Your task to perform on an android device: change alarm snooze length Image 0: 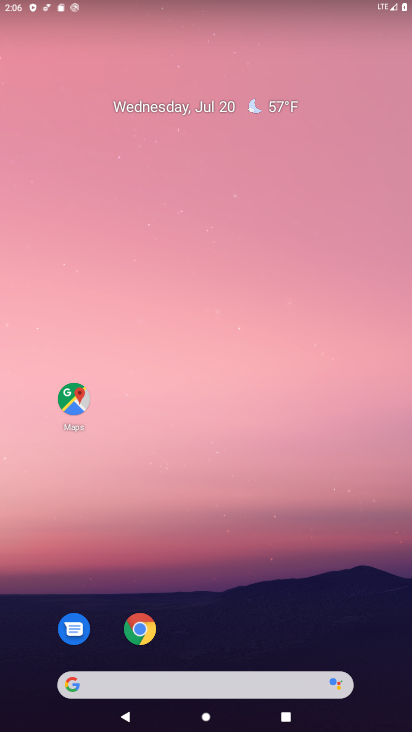
Step 0: drag from (375, 654) to (336, 88)
Your task to perform on an android device: change alarm snooze length Image 1: 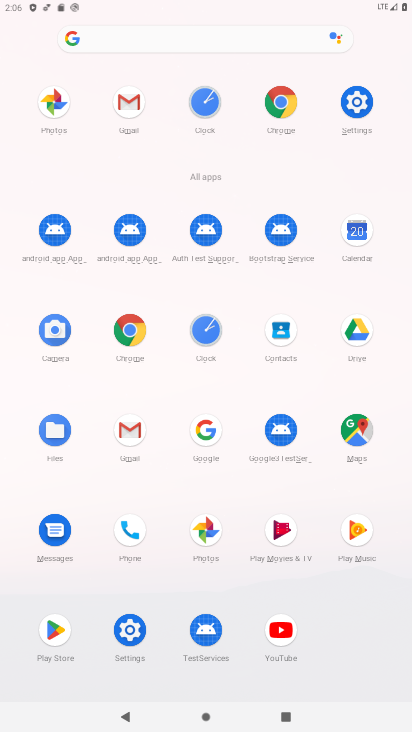
Step 1: click (206, 329)
Your task to perform on an android device: change alarm snooze length Image 2: 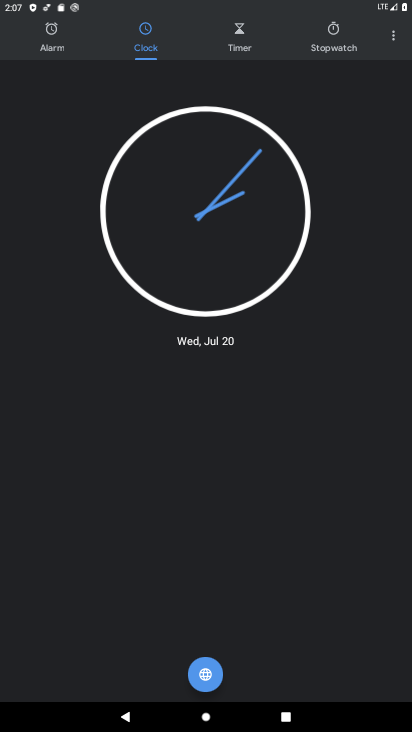
Step 2: click (391, 41)
Your task to perform on an android device: change alarm snooze length Image 3: 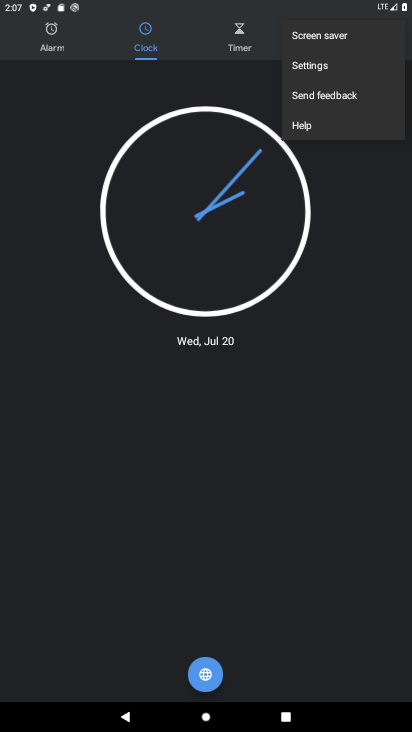
Step 3: click (310, 65)
Your task to perform on an android device: change alarm snooze length Image 4: 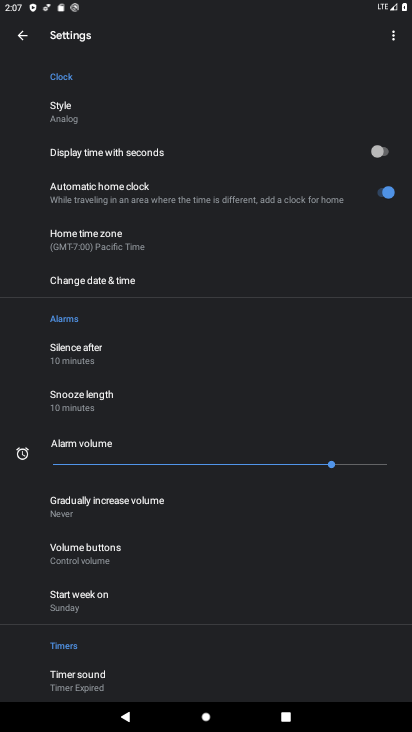
Step 4: click (86, 399)
Your task to perform on an android device: change alarm snooze length Image 5: 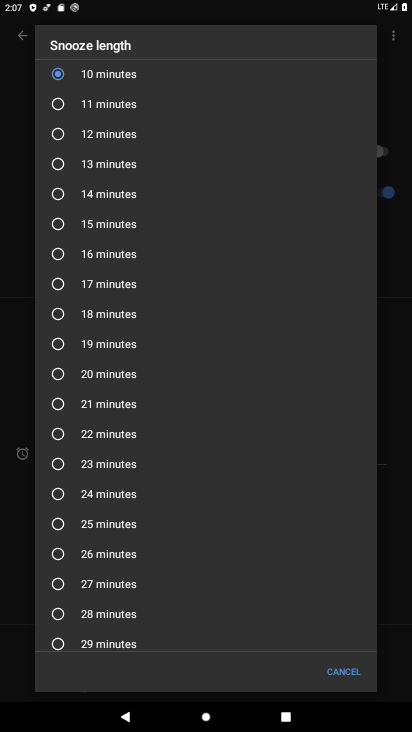
Step 5: click (56, 224)
Your task to perform on an android device: change alarm snooze length Image 6: 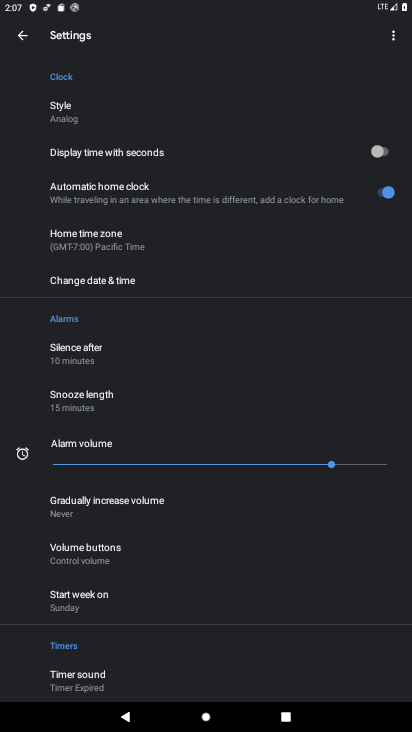
Step 6: task complete